Your task to perform on an android device: set the timer Image 0: 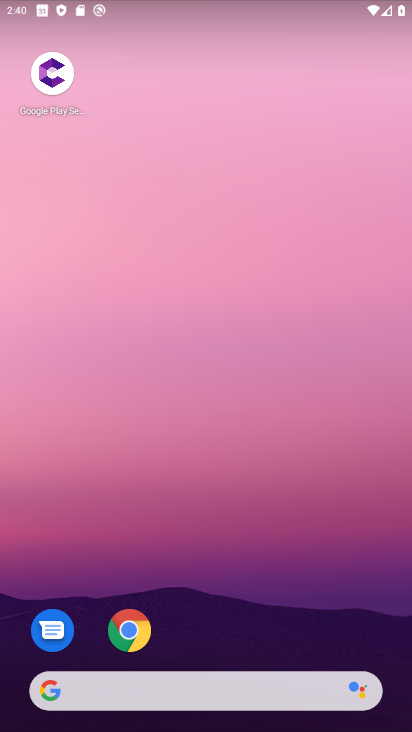
Step 0: drag from (247, 683) to (15, 236)
Your task to perform on an android device: set the timer Image 1: 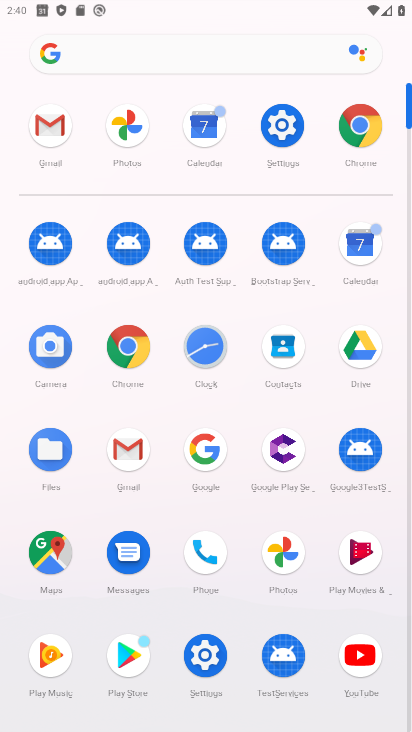
Step 1: click (193, 385)
Your task to perform on an android device: set the timer Image 2: 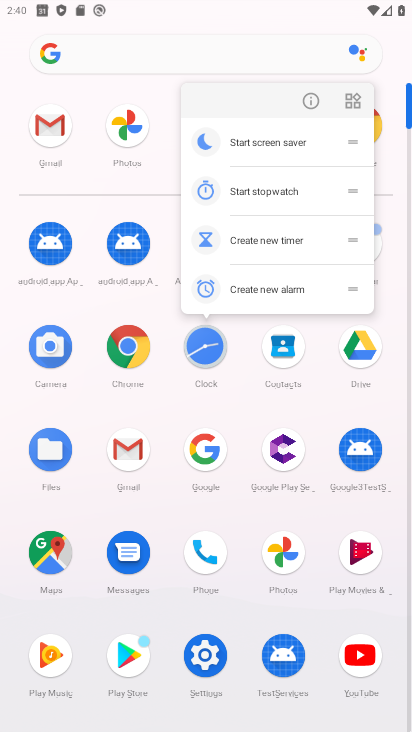
Step 2: click (203, 341)
Your task to perform on an android device: set the timer Image 3: 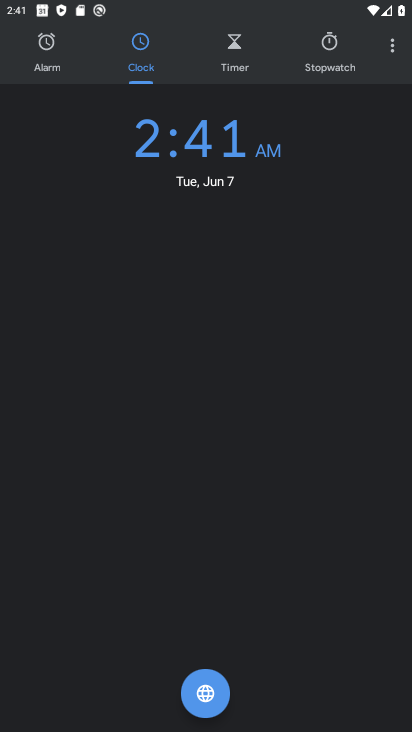
Step 3: click (228, 62)
Your task to perform on an android device: set the timer Image 4: 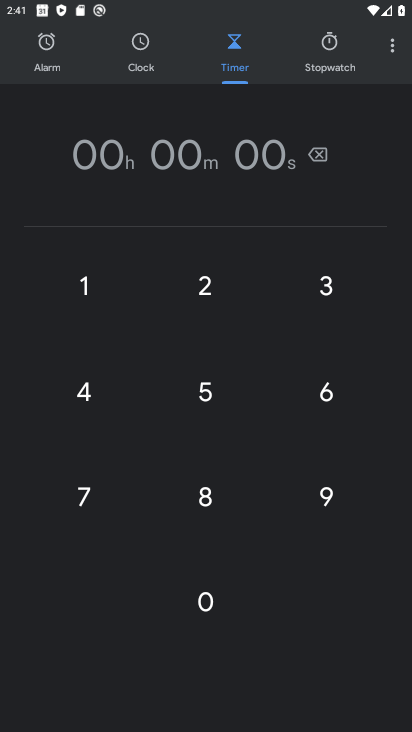
Step 4: click (186, 286)
Your task to perform on an android device: set the timer Image 5: 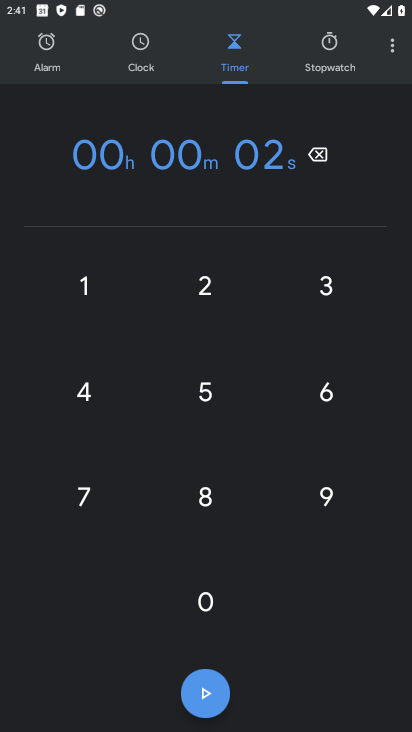
Step 5: click (221, 421)
Your task to perform on an android device: set the timer Image 6: 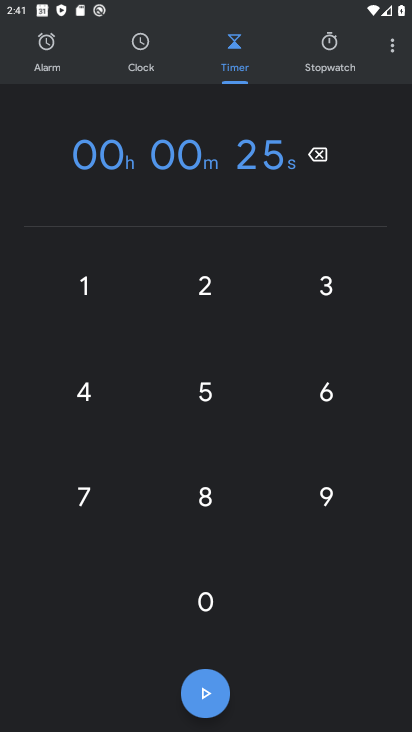
Step 6: click (213, 678)
Your task to perform on an android device: set the timer Image 7: 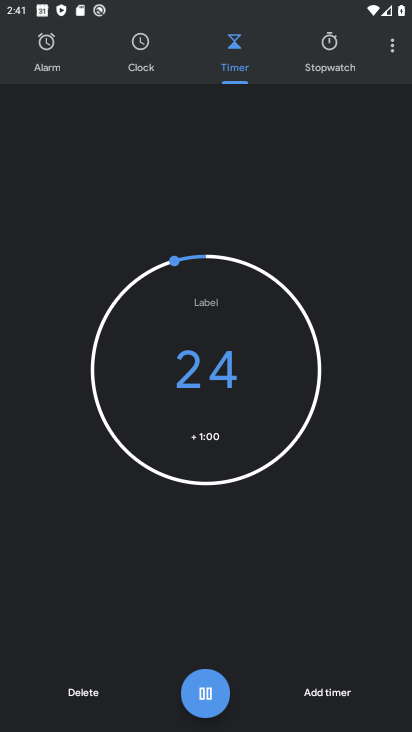
Step 7: task complete